Your task to perform on an android device: choose inbox layout in the gmail app Image 0: 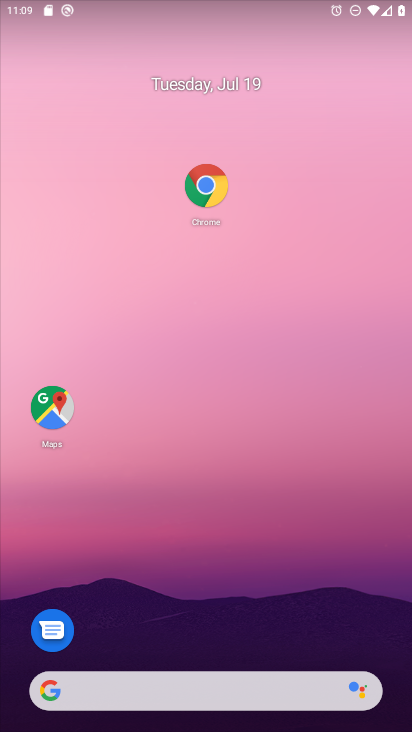
Step 0: drag from (244, 648) to (227, 189)
Your task to perform on an android device: choose inbox layout in the gmail app Image 1: 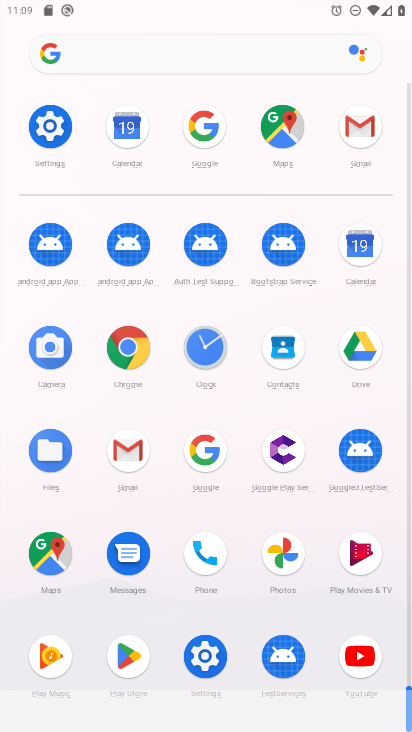
Step 1: click (142, 470)
Your task to perform on an android device: choose inbox layout in the gmail app Image 2: 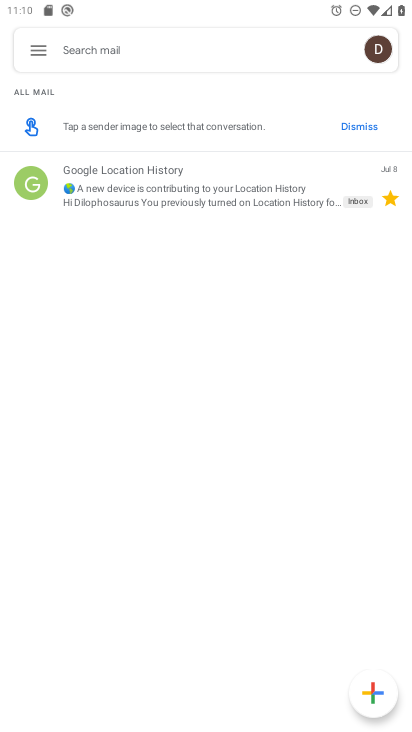
Step 2: click (33, 51)
Your task to perform on an android device: choose inbox layout in the gmail app Image 3: 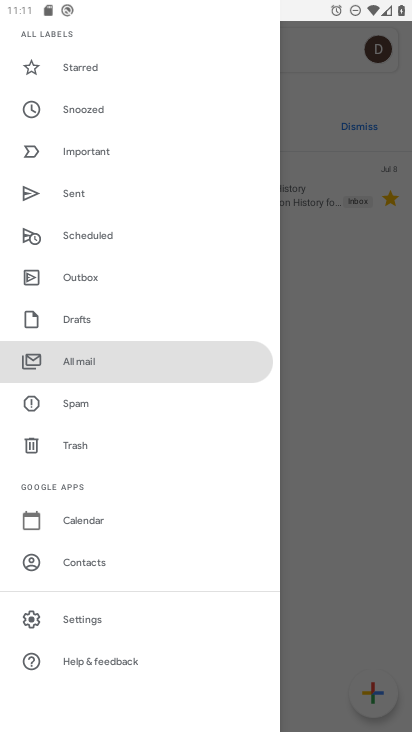
Step 3: click (54, 628)
Your task to perform on an android device: choose inbox layout in the gmail app Image 4: 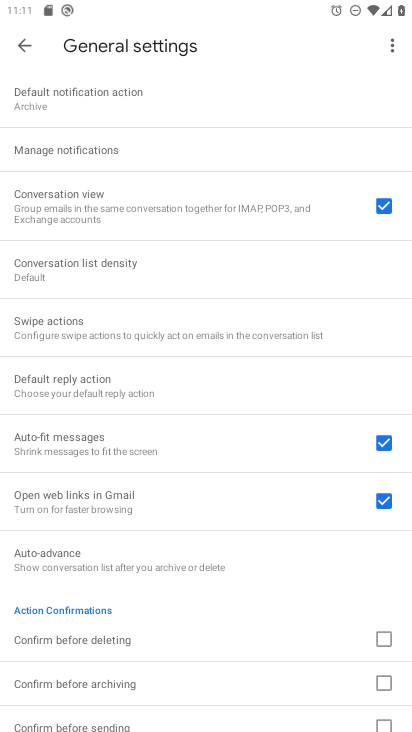
Step 4: task complete